Your task to perform on an android device: Open Youtube and go to "Your channel" Image 0: 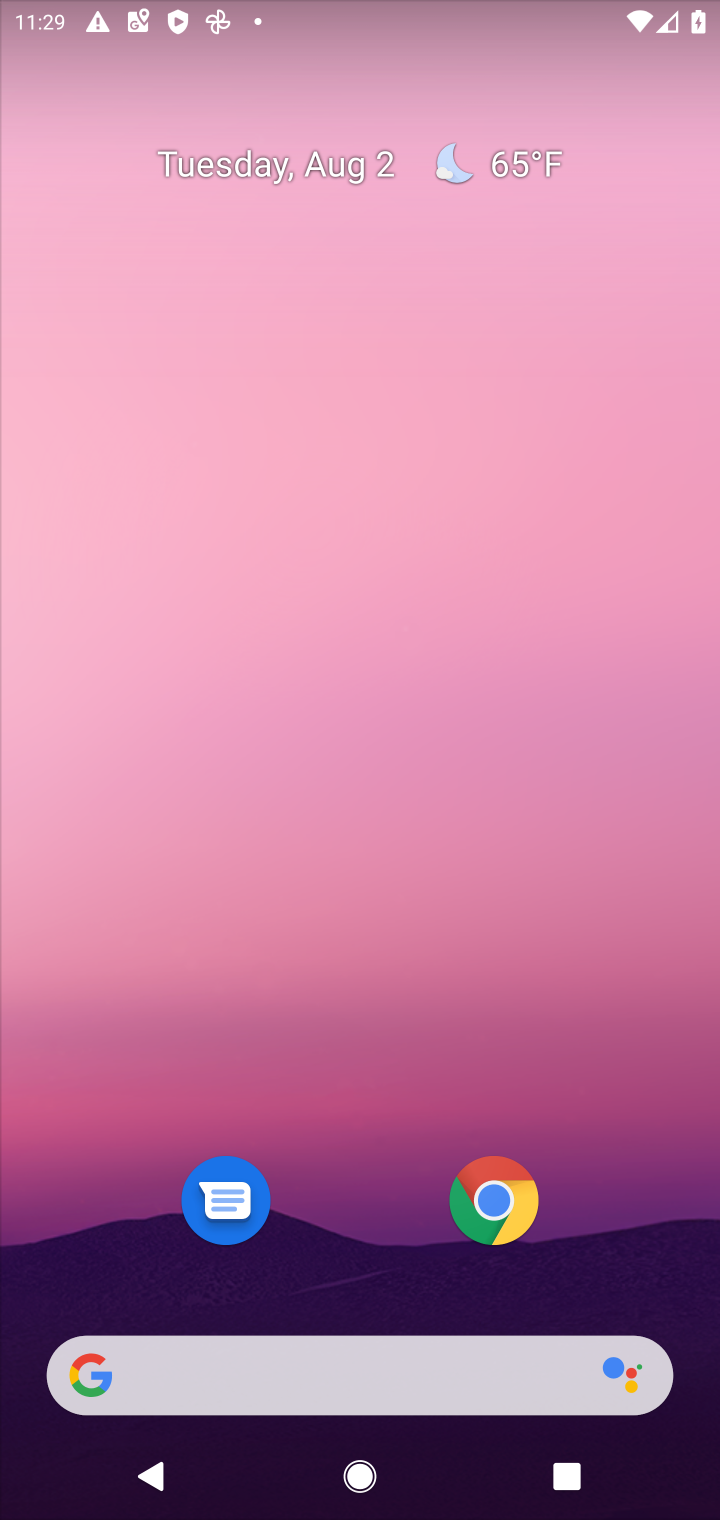
Step 0: drag from (636, 1264) to (536, 310)
Your task to perform on an android device: Open Youtube and go to "Your channel" Image 1: 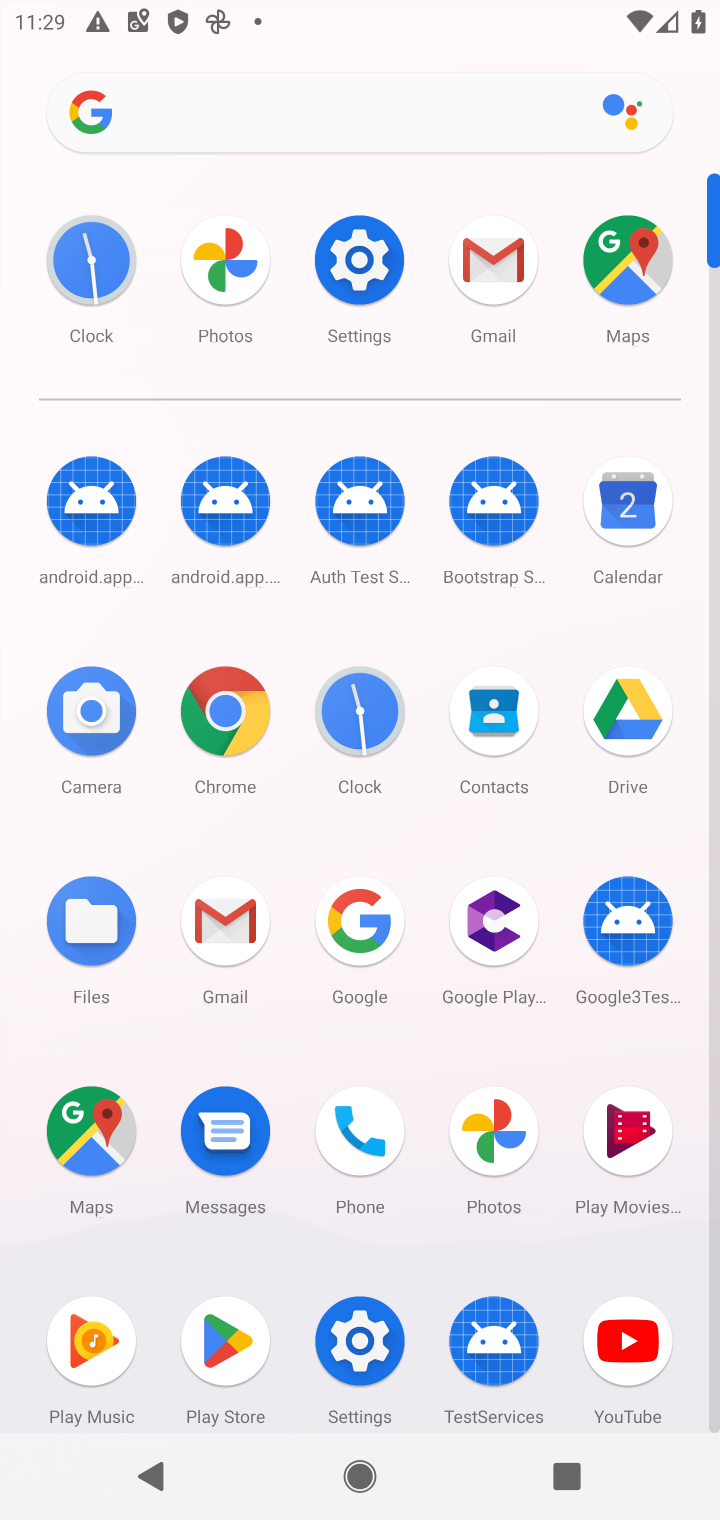
Step 1: click (635, 1335)
Your task to perform on an android device: Open Youtube and go to "Your channel" Image 2: 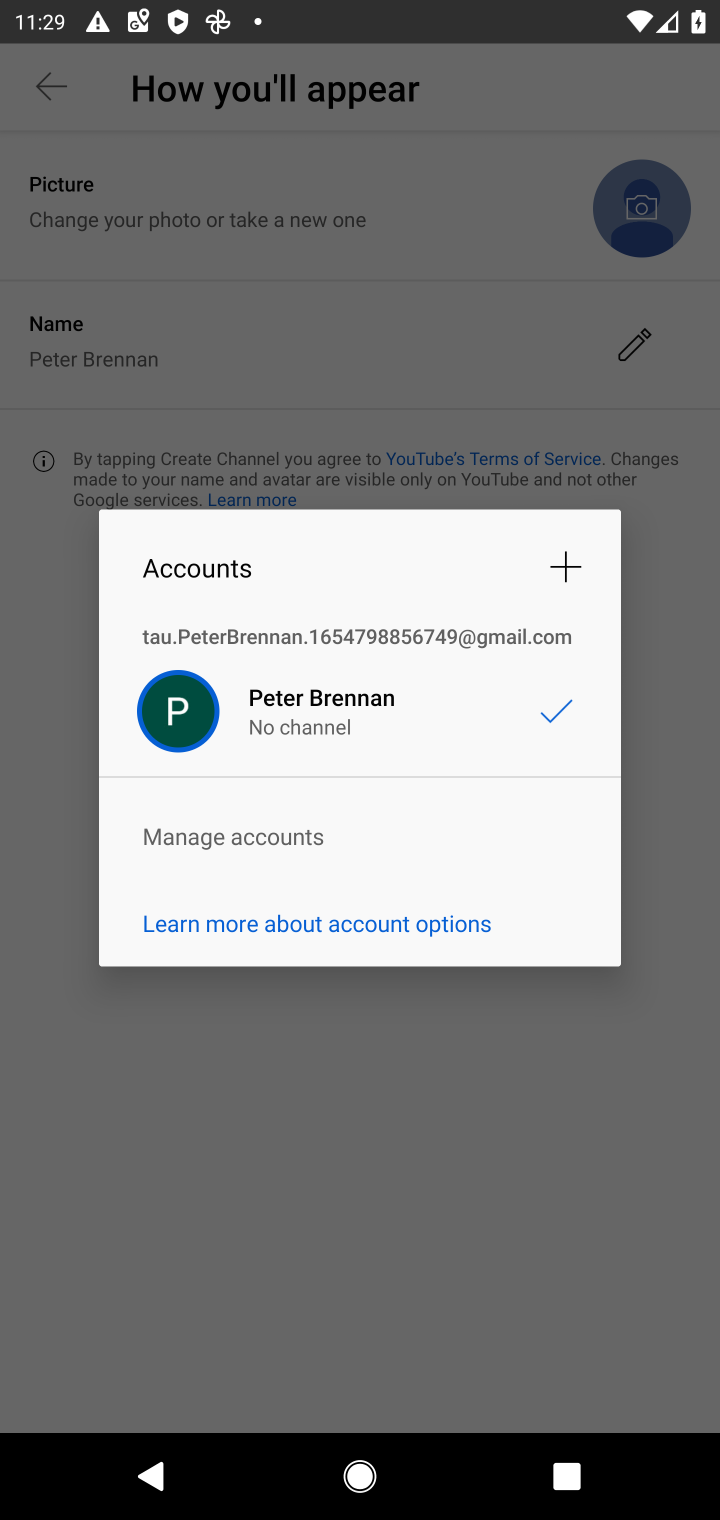
Step 2: click (350, 707)
Your task to perform on an android device: Open Youtube and go to "Your channel" Image 3: 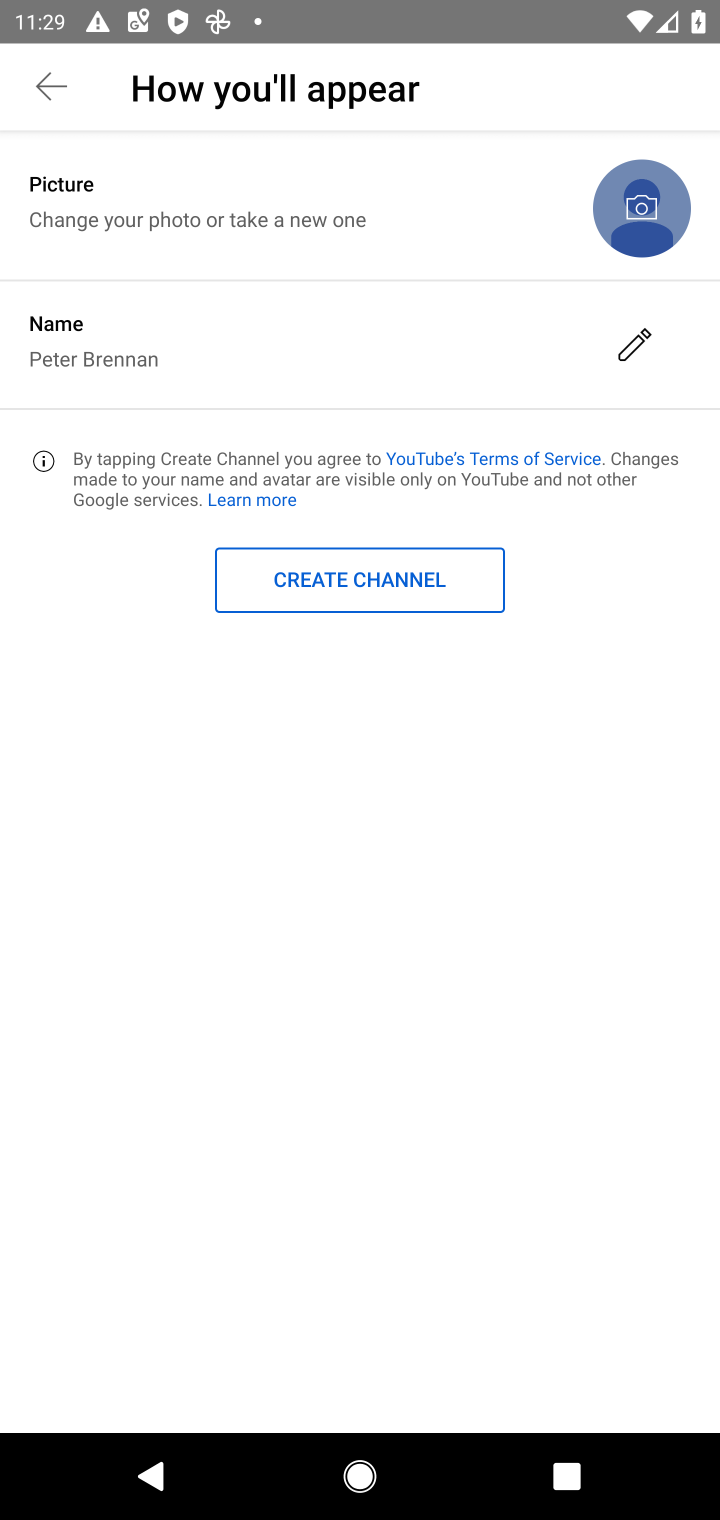
Step 3: task complete